Your task to perform on an android device: Open my contact list Image 0: 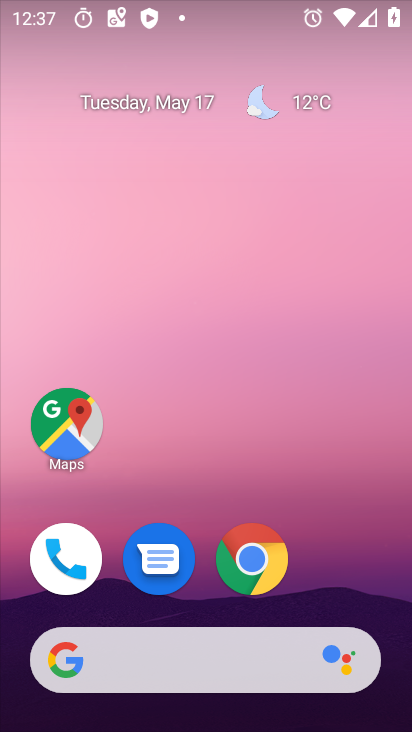
Step 0: drag from (326, 542) to (295, 95)
Your task to perform on an android device: Open my contact list Image 1: 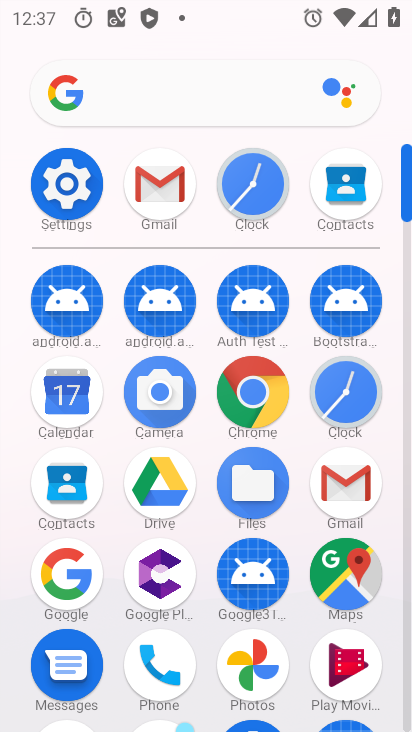
Step 1: click (70, 485)
Your task to perform on an android device: Open my contact list Image 2: 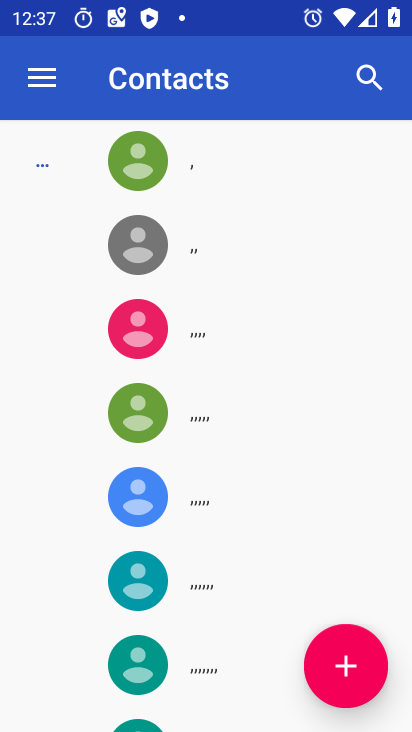
Step 2: task complete